Your task to perform on an android device: What's the weather? Image 0: 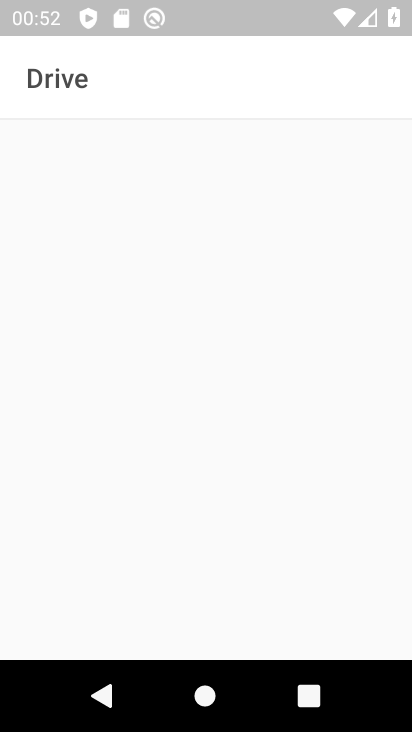
Step 0: press home button
Your task to perform on an android device: What's the weather? Image 1: 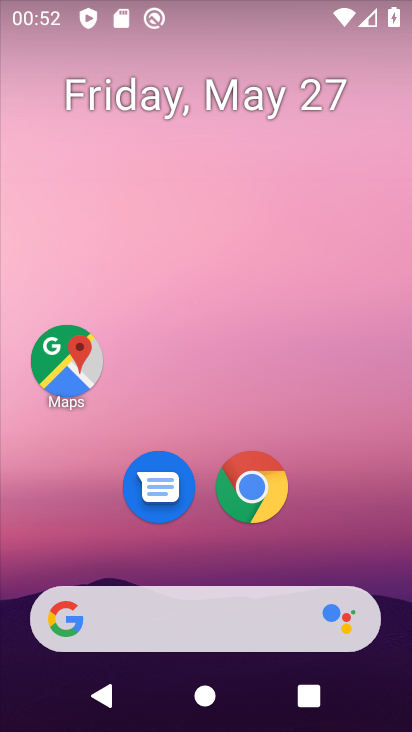
Step 1: click (182, 634)
Your task to perform on an android device: What's the weather? Image 2: 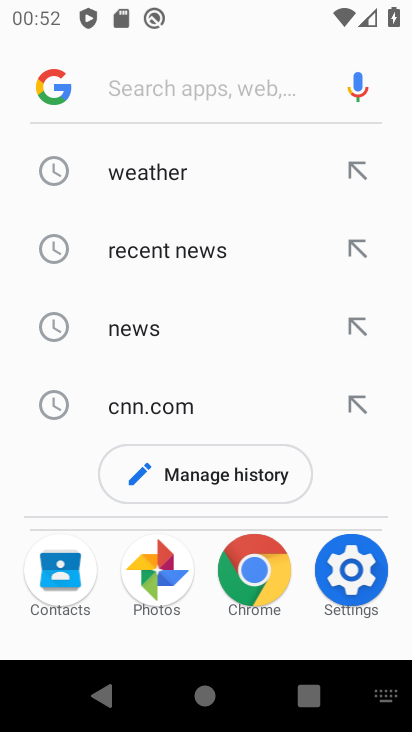
Step 2: click (147, 173)
Your task to perform on an android device: What's the weather? Image 3: 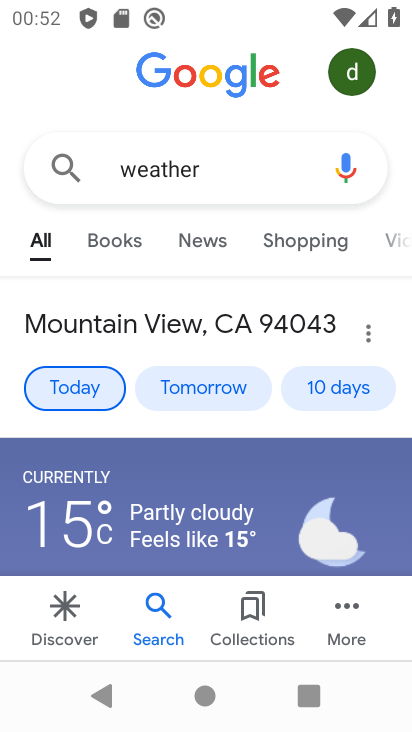
Step 3: task complete